Your task to perform on an android device: Go to calendar. Show me events next week Image 0: 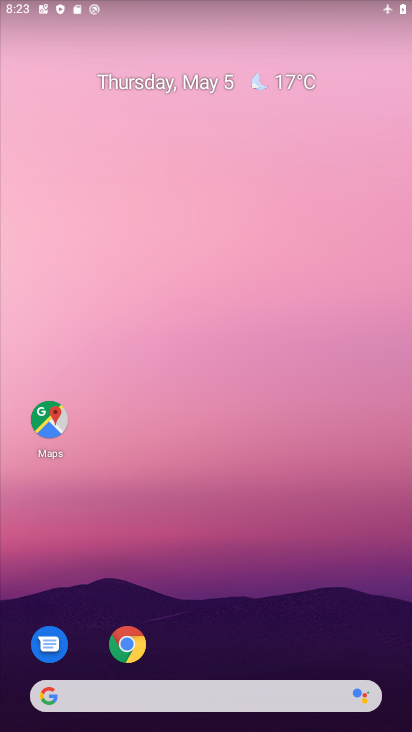
Step 0: drag from (231, 641) to (234, 395)
Your task to perform on an android device: Go to calendar. Show me events next week Image 1: 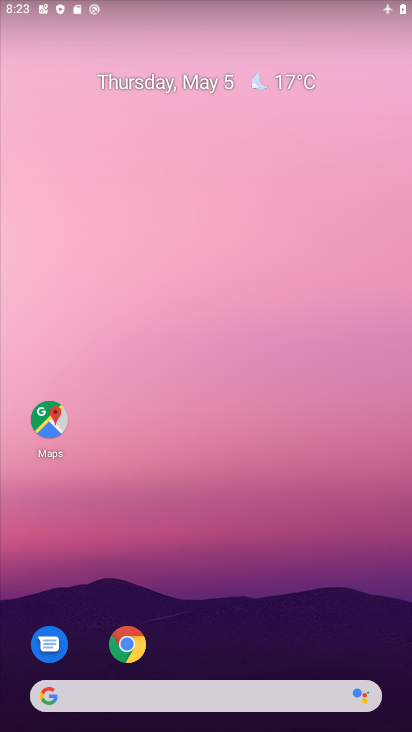
Step 1: drag from (196, 679) to (262, 194)
Your task to perform on an android device: Go to calendar. Show me events next week Image 2: 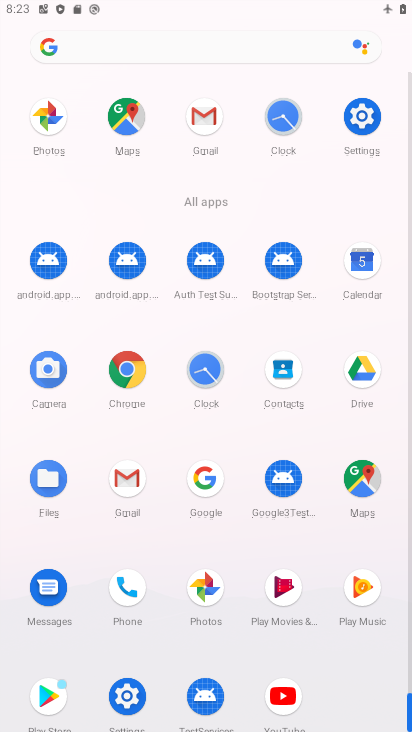
Step 2: drag from (232, 619) to (245, 215)
Your task to perform on an android device: Go to calendar. Show me events next week Image 3: 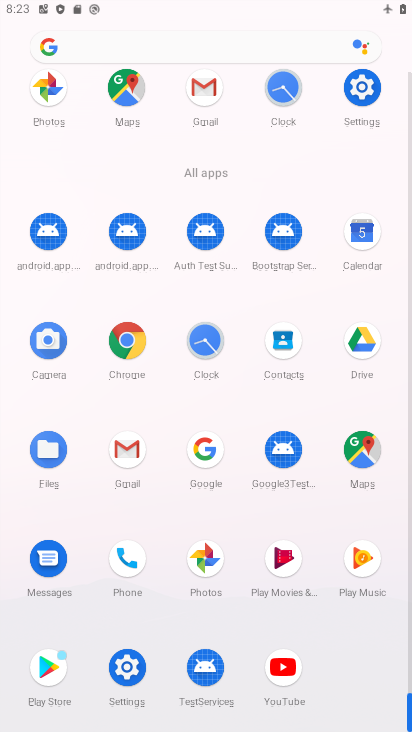
Step 3: click (356, 220)
Your task to perform on an android device: Go to calendar. Show me events next week Image 4: 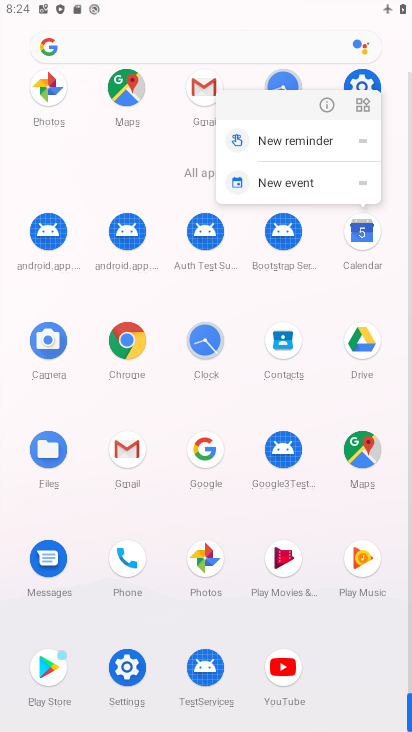
Step 4: click (321, 104)
Your task to perform on an android device: Go to calendar. Show me events next week Image 5: 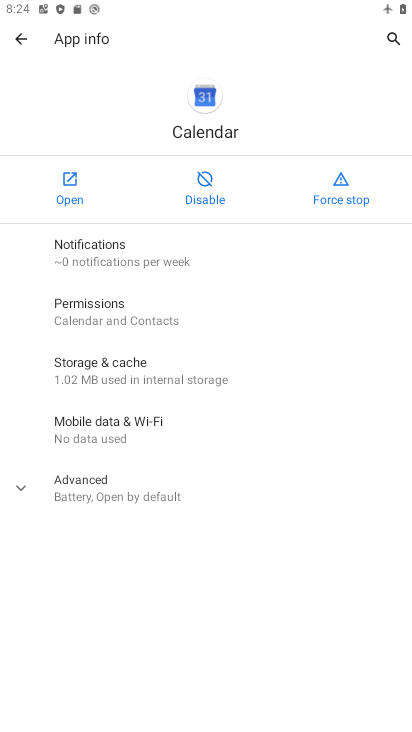
Step 5: click (86, 192)
Your task to perform on an android device: Go to calendar. Show me events next week Image 6: 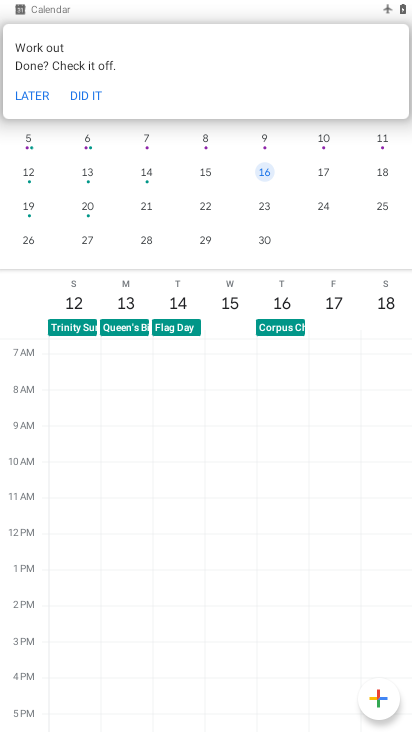
Step 6: drag from (93, 181) to (358, 191)
Your task to perform on an android device: Go to calendar. Show me events next week Image 7: 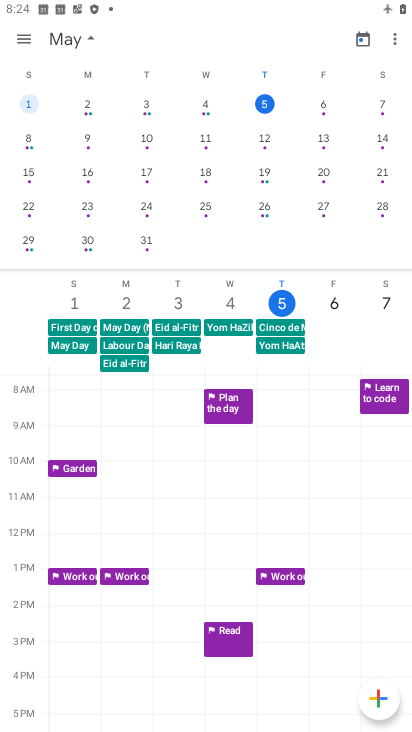
Step 7: drag from (353, 167) to (84, 179)
Your task to perform on an android device: Go to calendar. Show me events next week Image 8: 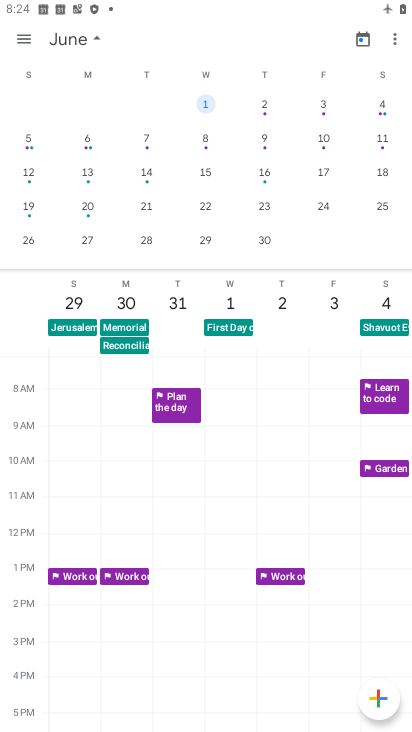
Step 8: click (15, 31)
Your task to perform on an android device: Go to calendar. Show me events next week Image 9: 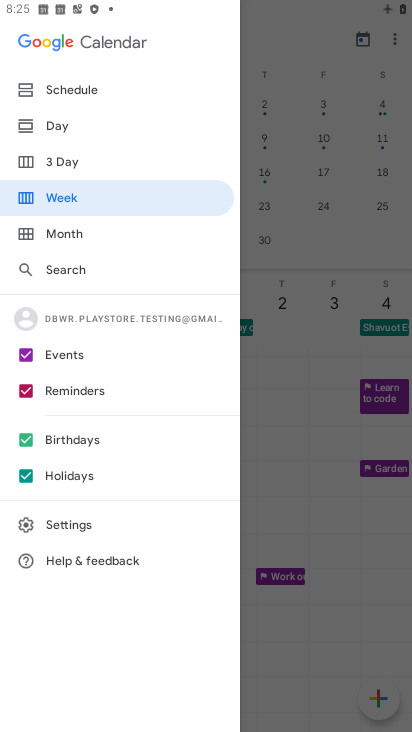
Step 9: click (78, 184)
Your task to perform on an android device: Go to calendar. Show me events next week Image 10: 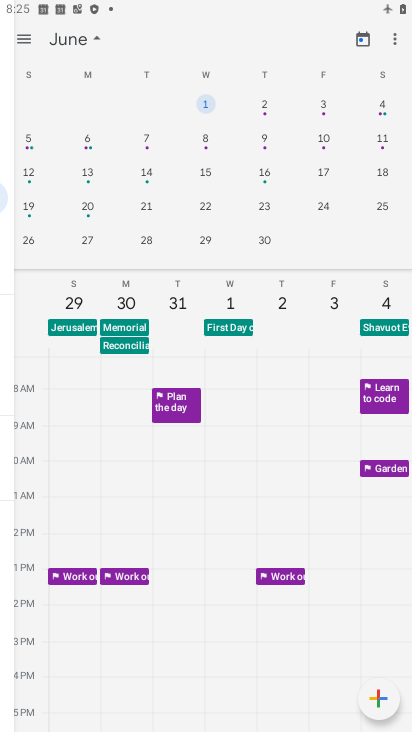
Step 10: drag from (117, 147) to (411, 150)
Your task to perform on an android device: Go to calendar. Show me events next week Image 11: 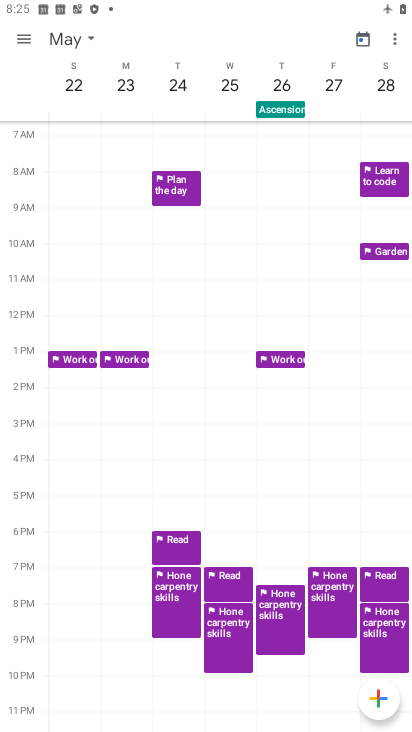
Step 11: drag from (90, 79) to (334, 88)
Your task to perform on an android device: Go to calendar. Show me events next week Image 12: 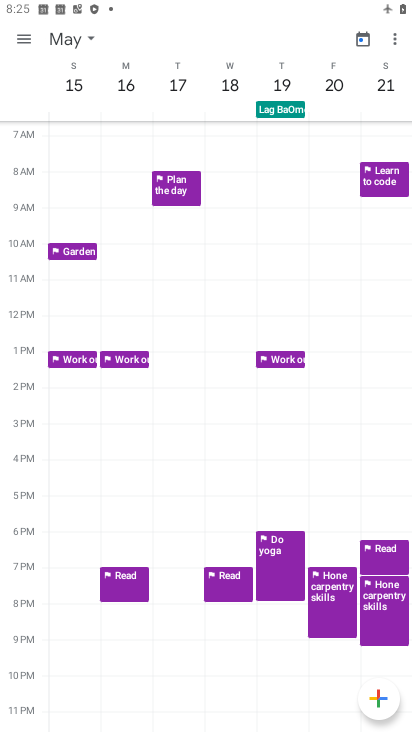
Step 12: click (61, 40)
Your task to perform on an android device: Go to calendar. Show me events next week Image 13: 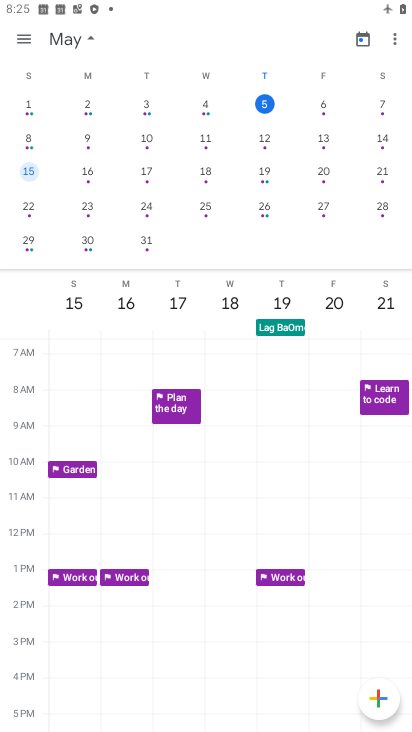
Step 13: click (263, 139)
Your task to perform on an android device: Go to calendar. Show me events next week Image 14: 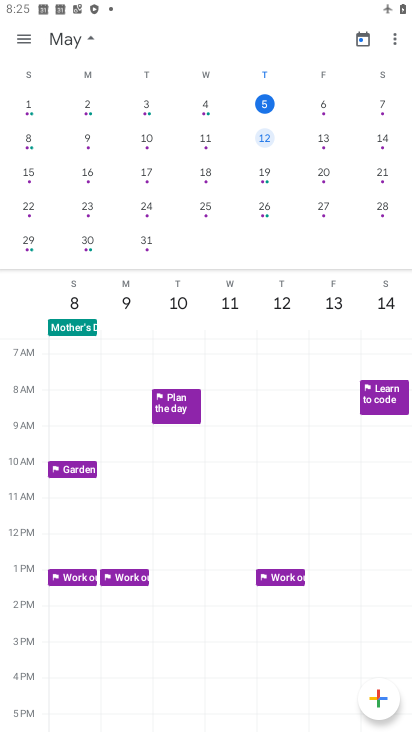
Step 14: click (382, 107)
Your task to perform on an android device: Go to calendar. Show me events next week Image 15: 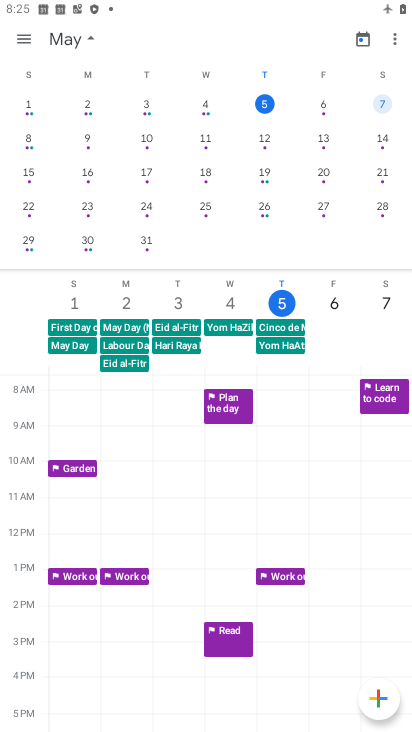
Step 15: task complete